Your task to perform on an android device: Open wifi settings Image 0: 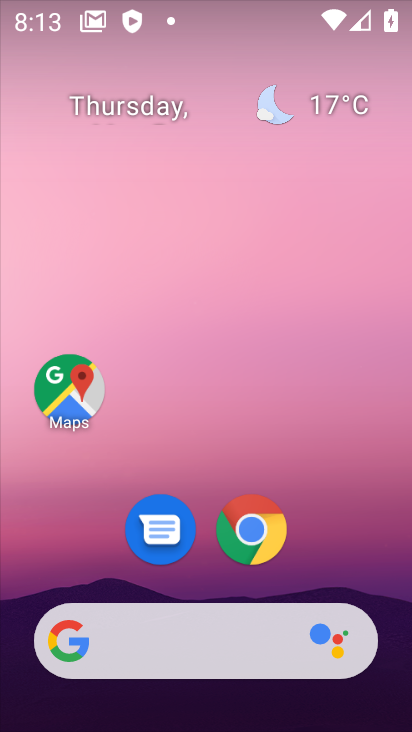
Step 0: drag from (344, 527) to (272, 42)
Your task to perform on an android device: Open wifi settings Image 1: 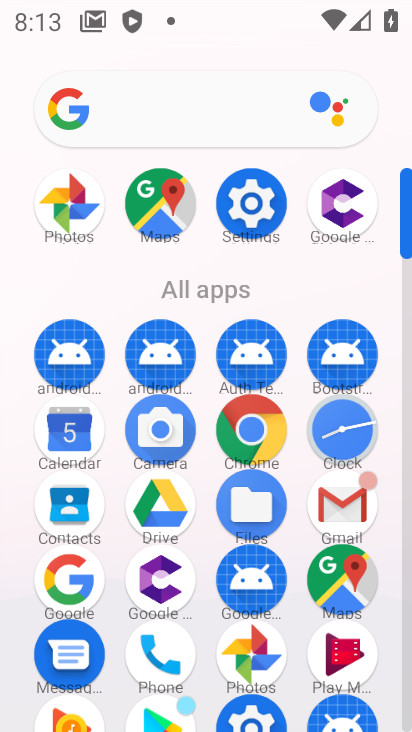
Step 1: click (252, 195)
Your task to perform on an android device: Open wifi settings Image 2: 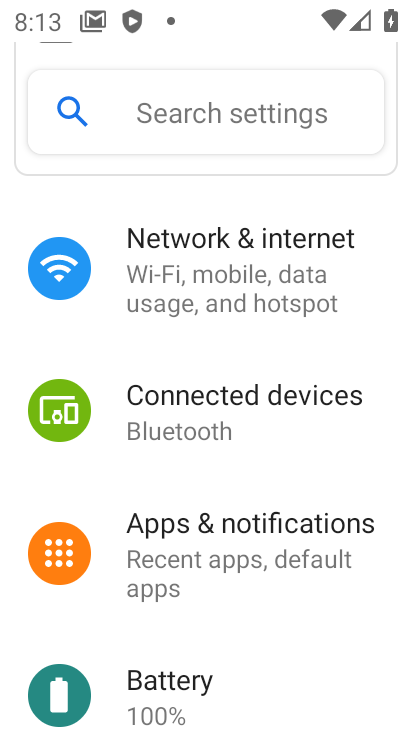
Step 2: click (219, 262)
Your task to perform on an android device: Open wifi settings Image 3: 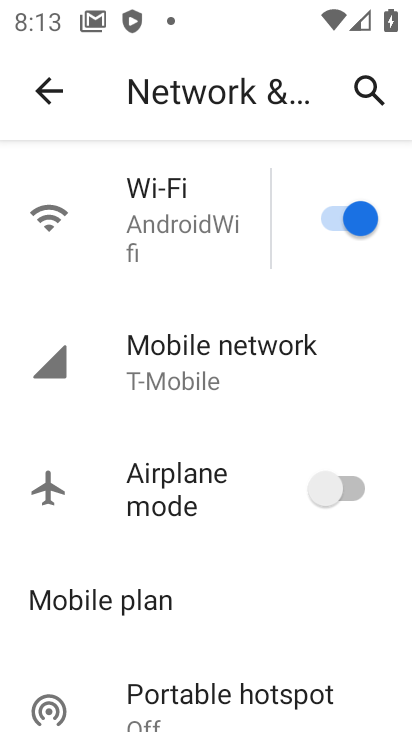
Step 3: click (153, 202)
Your task to perform on an android device: Open wifi settings Image 4: 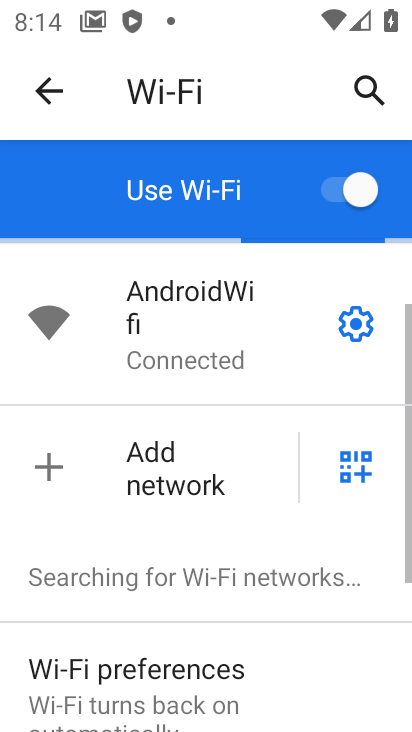
Step 4: task complete